Your task to perform on an android device: Open the calendar and show me this week's events? Image 0: 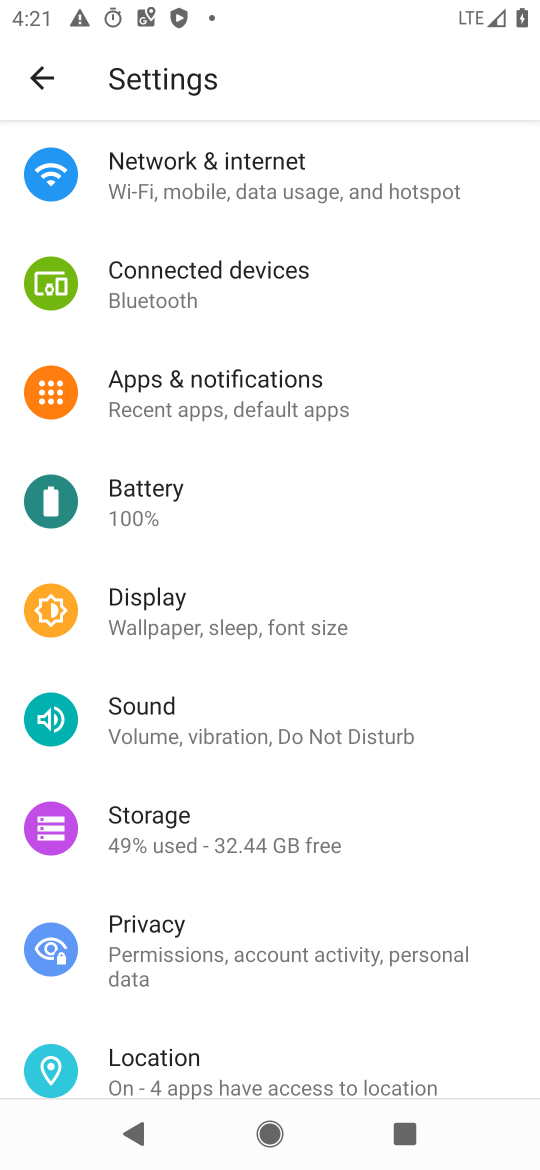
Step 0: press home button
Your task to perform on an android device: Open the calendar and show me this week's events? Image 1: 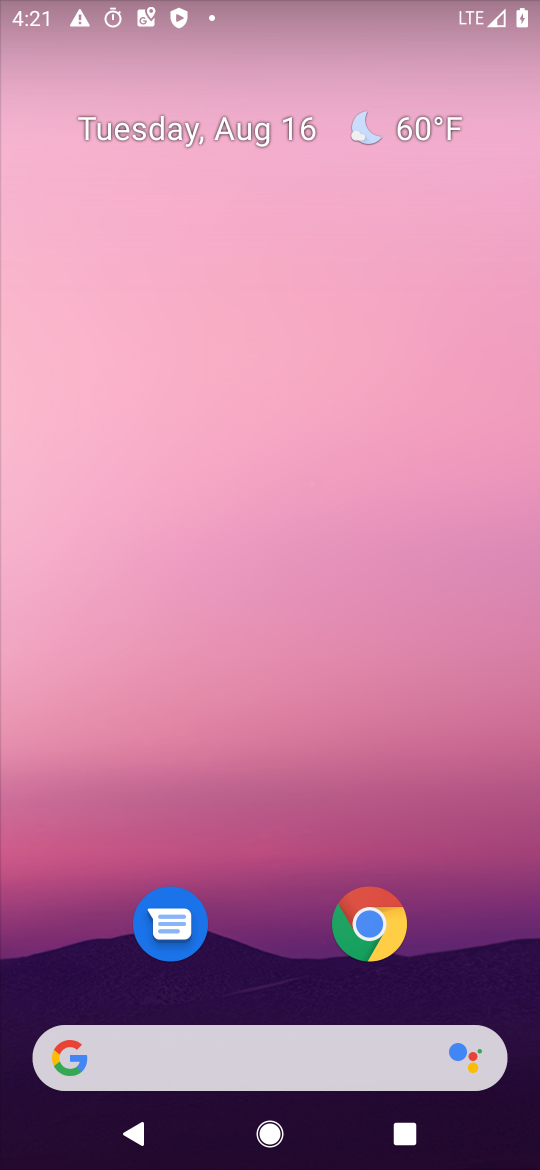
Step 1: click (200, 144)
Your task to perform on an android device: Open the calendar and show me this week's events? Image 2: 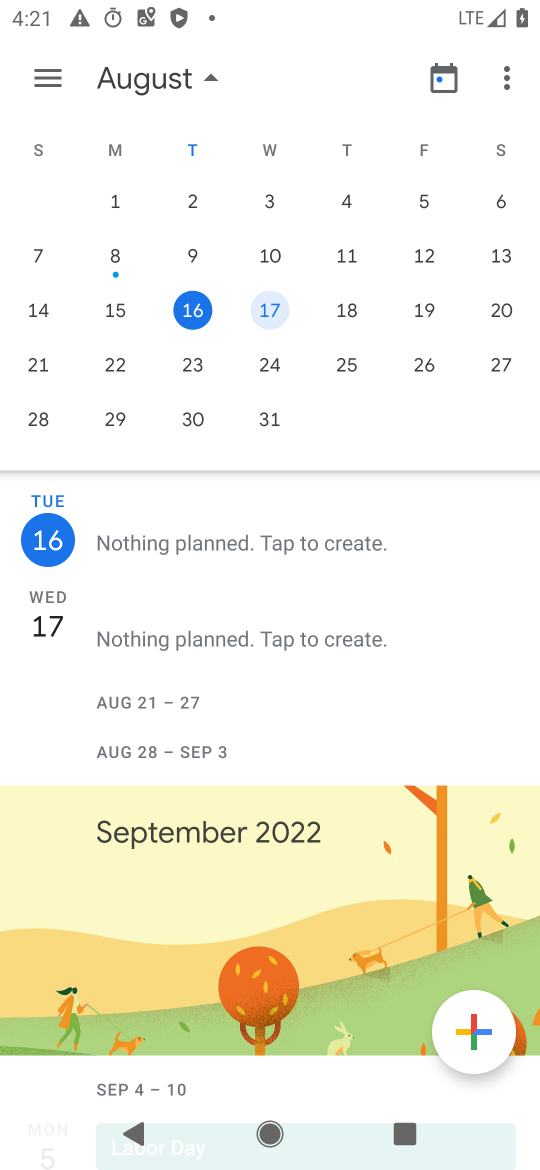
Step 2: click (48, 67)
Your task to perform on an android device: Open the calendar and show me this week's events? Image 3: 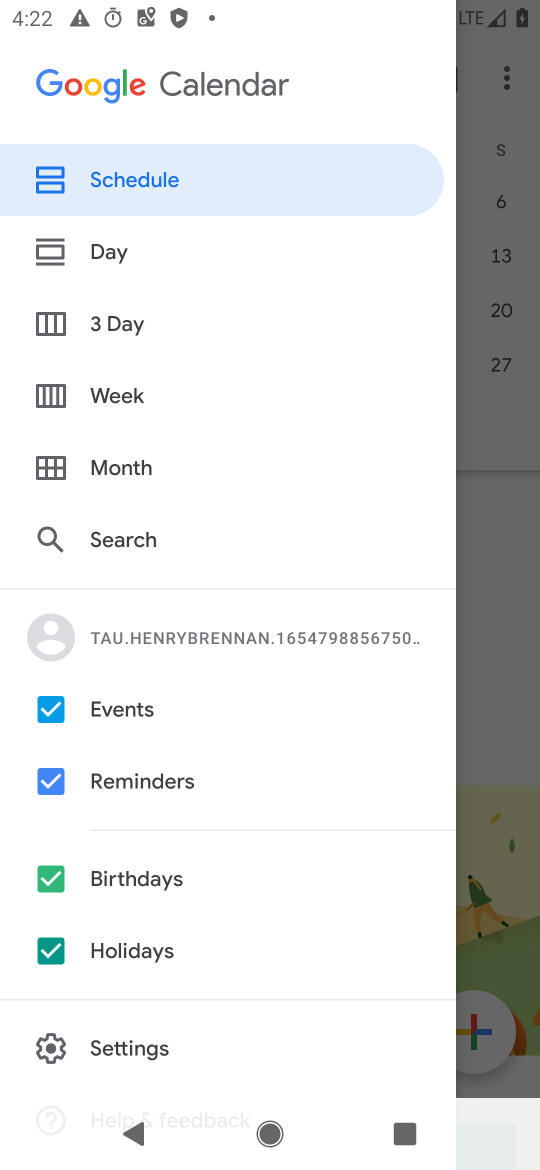
Step 3: click (42, 773)
Your task to perform on an android device: Open the calendar and show me this week's events? Image 4: 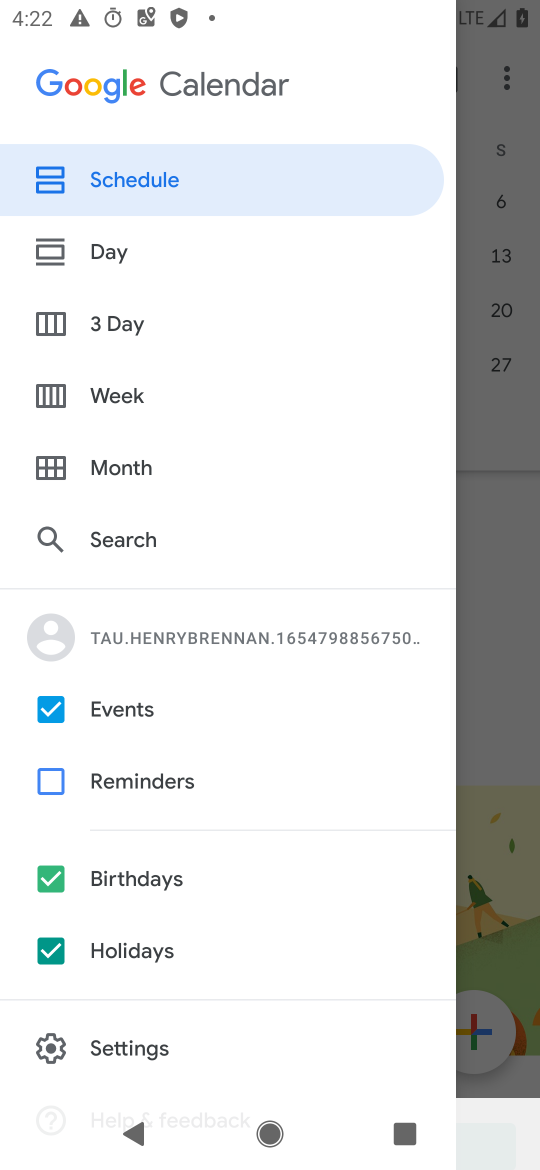
Step 4: click (48, 879)
Your task to perform on an android device: Open the calendar and show me this week's events? Image 5: 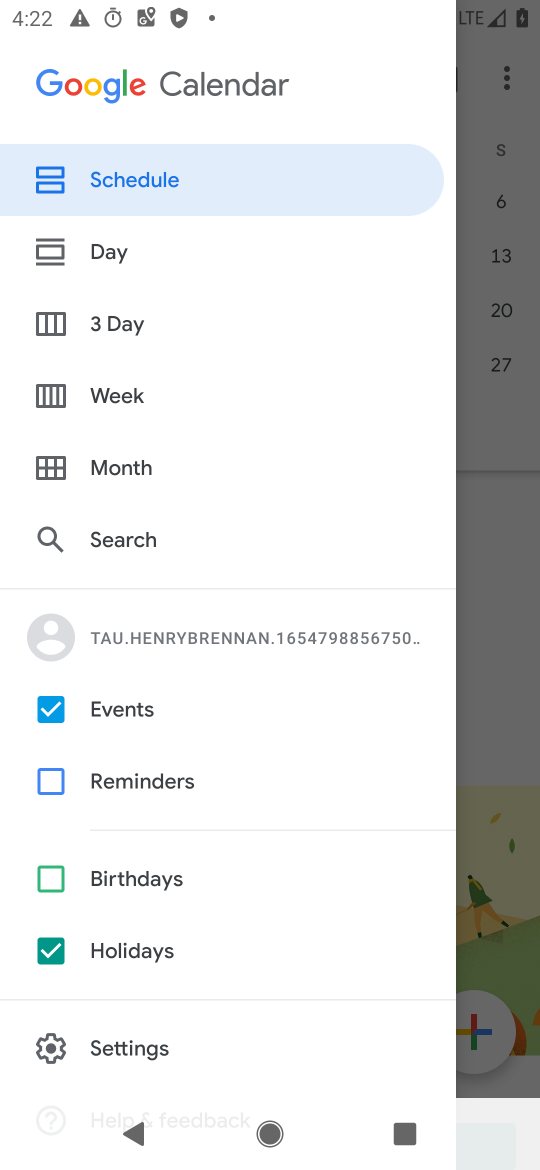
Step 5: click (35, 948)
Your task to perform on an android device: Open the calendar and show me this week's events? Image 6: 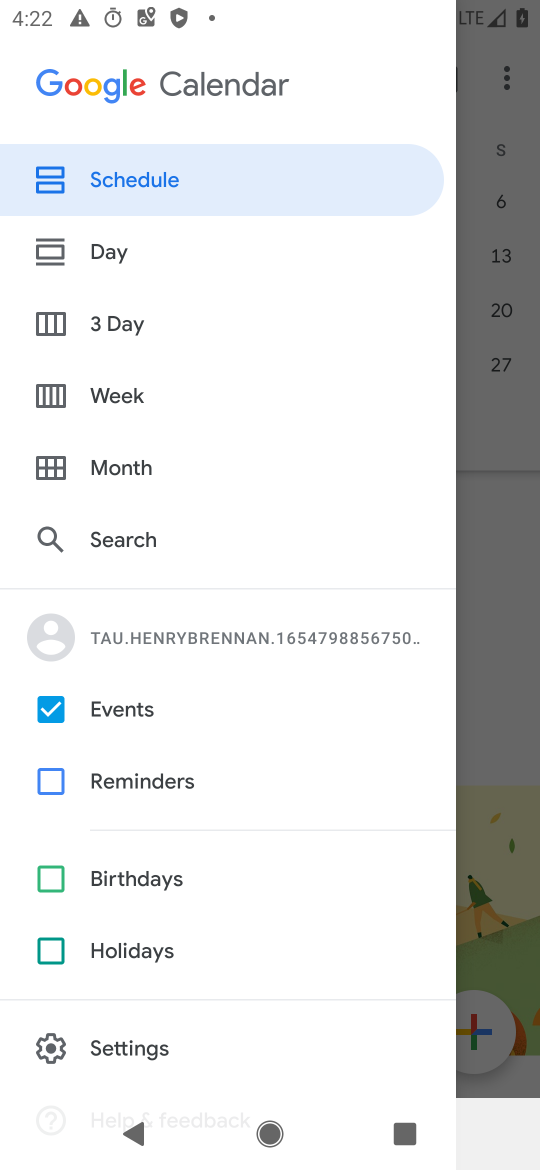
Step 6: click (106, 391)
Your task to perform on an android device: Open the calendar and show me this week's events? Image 7: 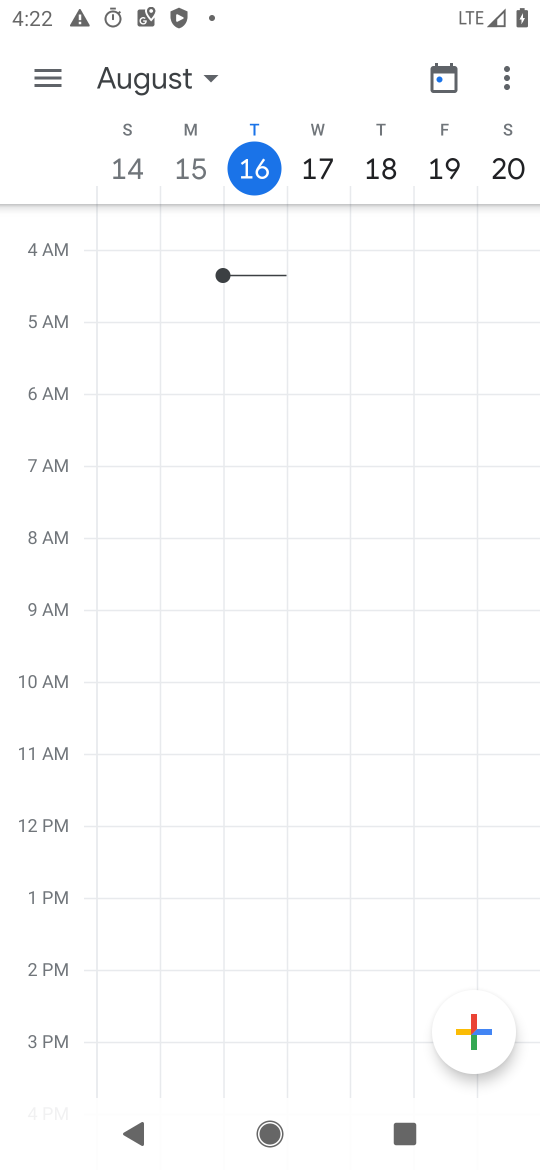
Step 7: task complete